Your task to perform on an android device: Open Youtube and go to "Your channel" Image 0: 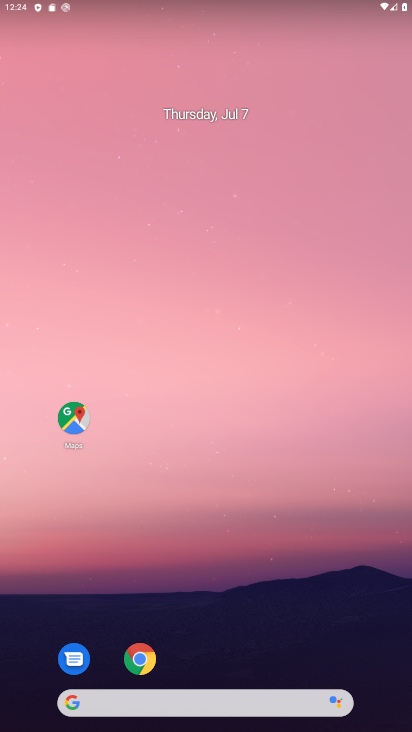
Step 0: drag from (232, 553) to (161, 141)
Your task to perform on an android device: Open Youtube and go to "Your channel" Image 1: 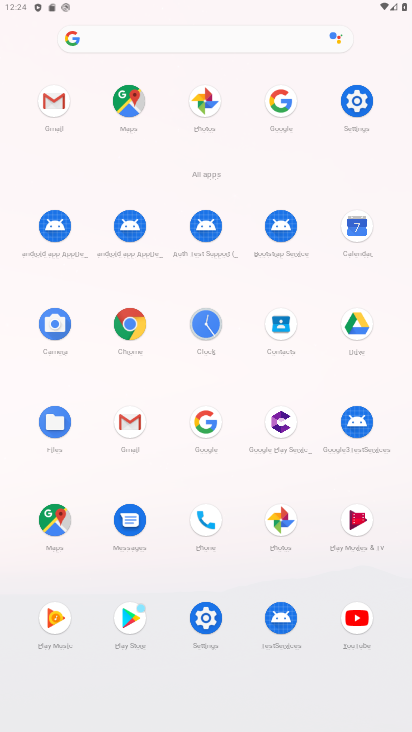
Step 1: click (359, 614)
Your task to perform on an android device: Open Youtube and go to "Your channel" Image 2: 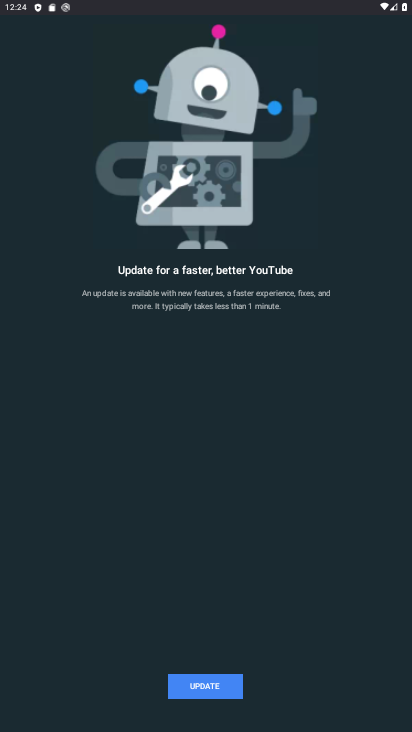
Step 2: click (198, 689)
Your task to perform on an android device: Open Youtube and go to "Your channel" Image 3: 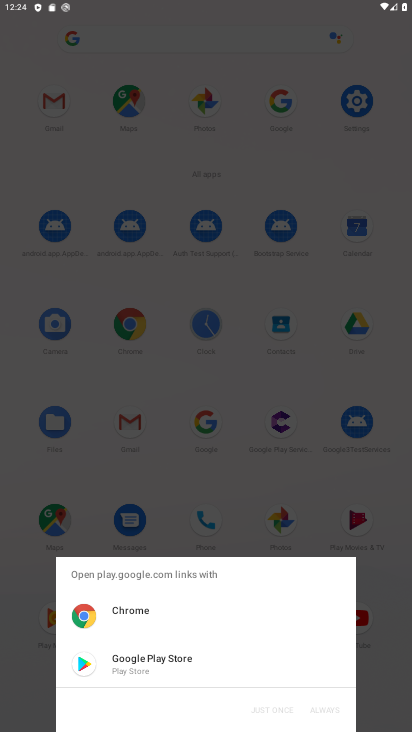
Step 3: click (146, 647)
Your task to perform on an android device: Open Youtube and go to "Your channel" Image 4: 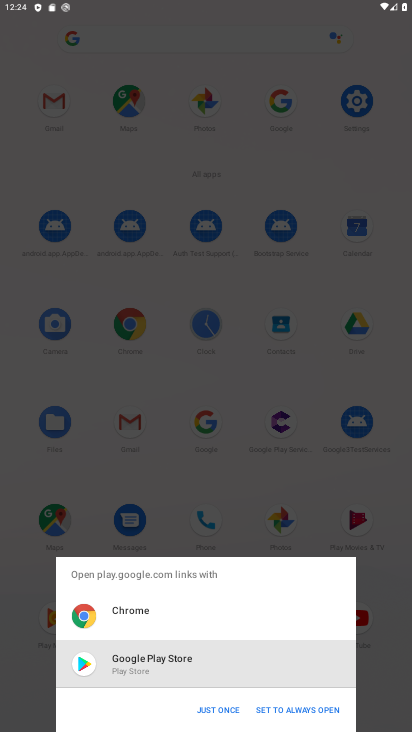
Step 4: click (218, 707)
Your task to perform on an android device: Open Youtube and go to "Your channel" Image 5: 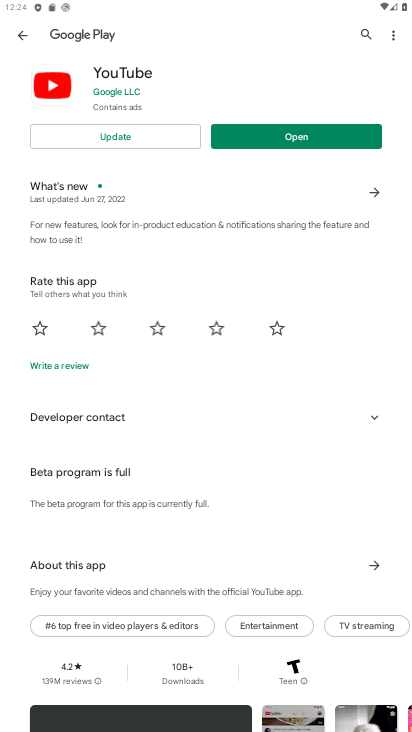
Step 5: click (155, 133)
Your task to perform on an android device: Open Youtube and go to "Your channel" Image 6: 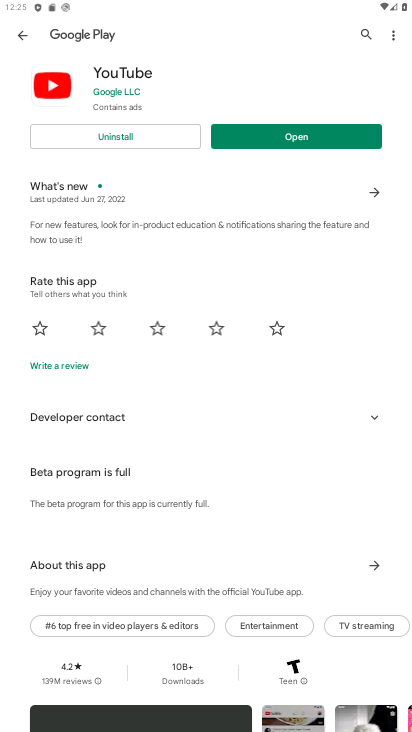
Step 6: click (283, 140)
Your task to perform on an android device: Open Youtube and go to "Your channel" Image 7: 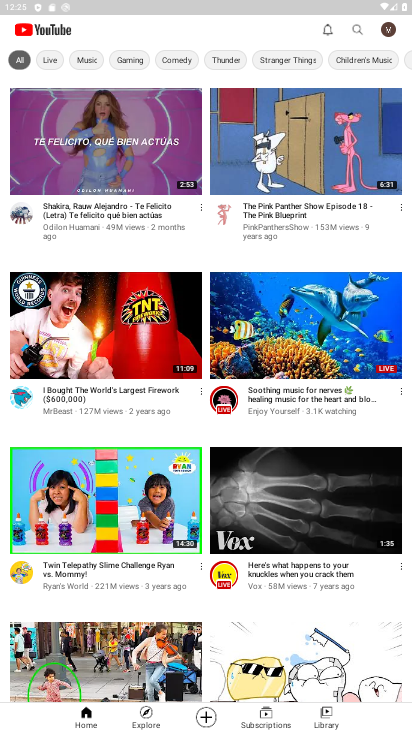
Step 7: click (391, 26)
Your task to perform on an android device: Open Youtube and go to "Your channel" Image 8: 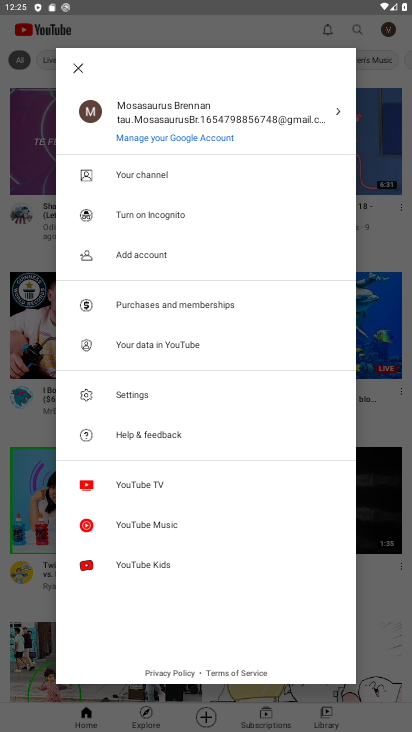
Step 8: click (148, 174)
Your task to perform on an android device: Open Youtube and go to "Your channel" Image 9: 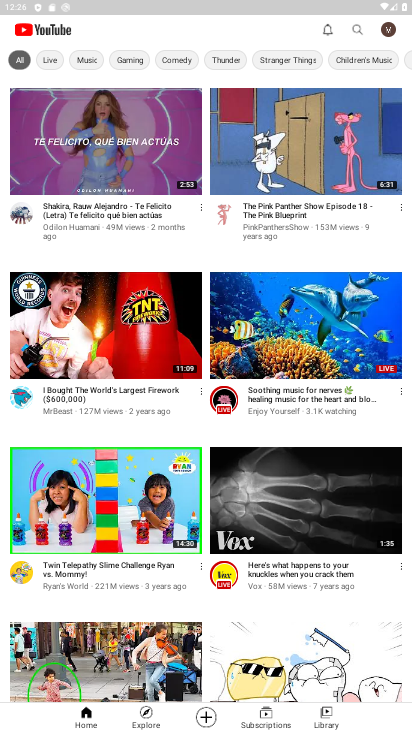
Step 9: task complete